Your task to perform on an android device: set an alarm Image 0: 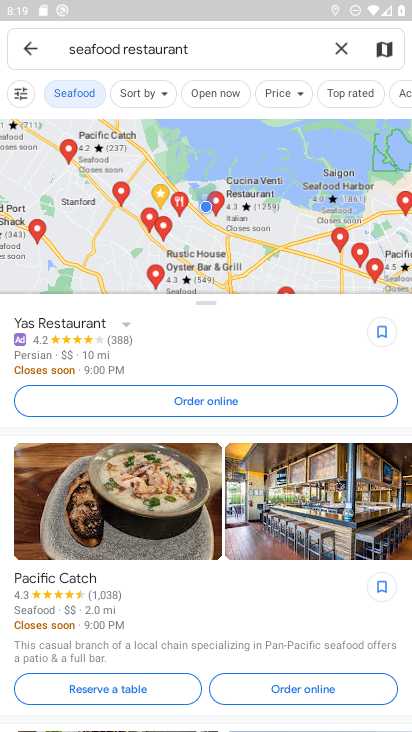
Step 0: press home button
Your task to perform on an android device: set an alarm Image 1: 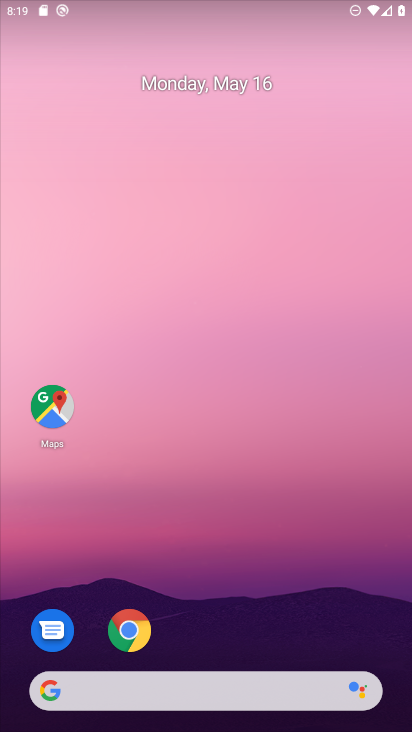
Step 1: drag from (174, 618) to (172, 183)
Your task to perform on an android device: set an alarm Image 2: 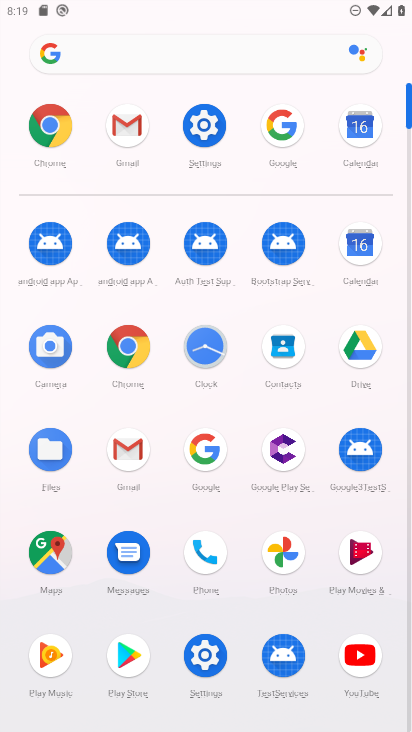
Step 2: click (212, 355)
Your task to perform on an android device: set an alarm Image 3: 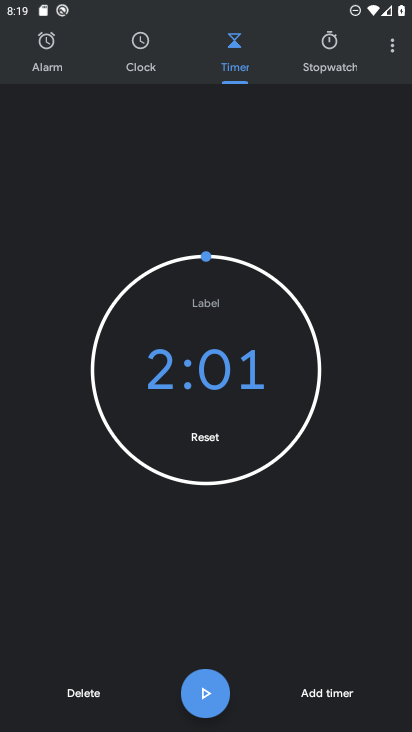
Step 3: click (35, 65)
Your task to perform on an android device: set an alarm Image 4: 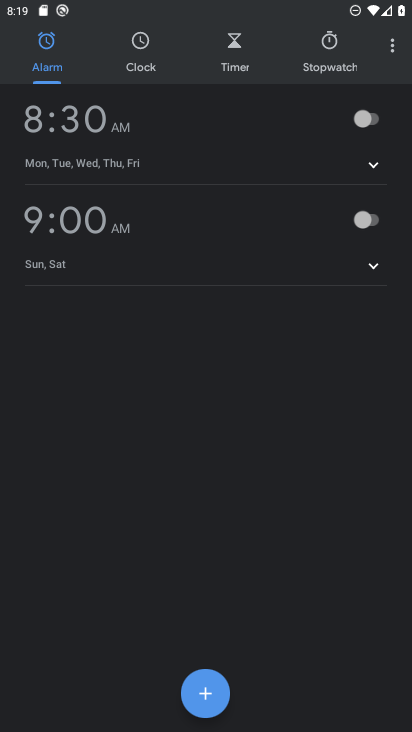
Step 4: click (209, 686)
Your task to perform on an android device: set an alarm Image 5: 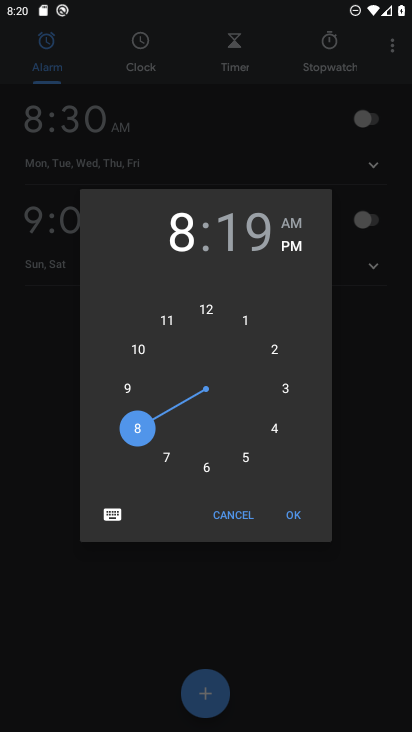
Step 5: click (295, 219)
Your task to perform on an android device: set an alarm Image 6: 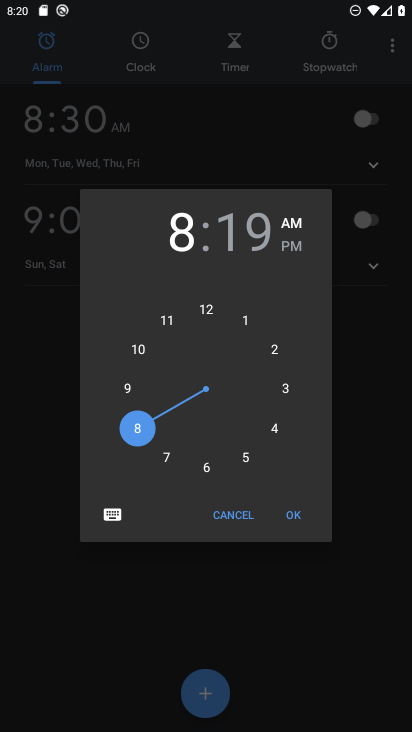
Step 6: click (291, 516)
Your task to perform on an android device: set an alarm Image 7: 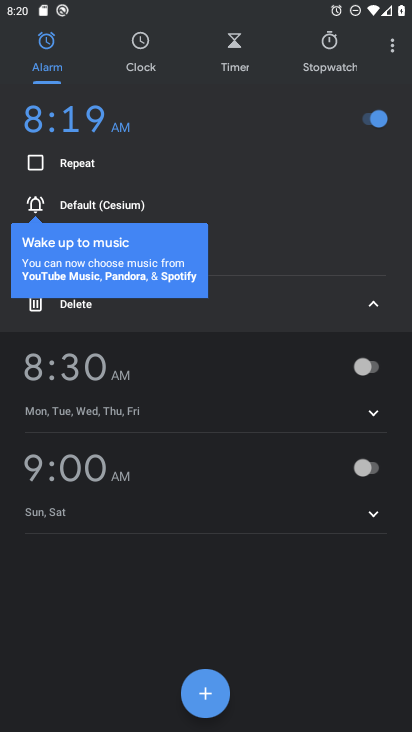
Step 7: task complete